Your task to perform on an android device: turn off notifications settings in the gmail app Image 0: 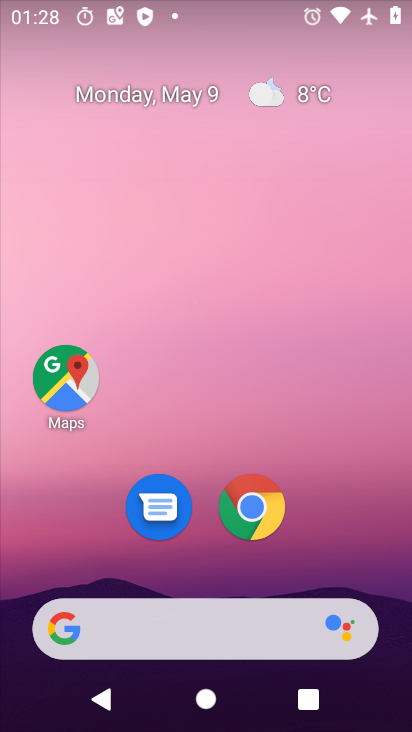
Step 0: drag from (235, 728) to (219, 208)
Your task to perform on an android device: turn off notifications settings in the gmail app Image 1: 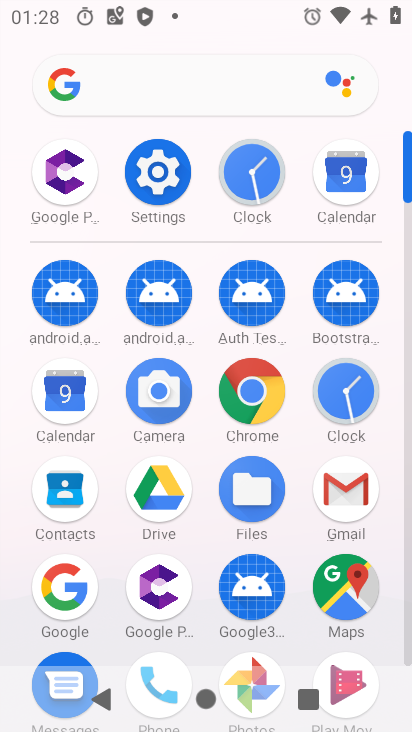
Step 1: click (356, 489)
Your task to perform on an android device: turn off notifications settings in the gmail app Image 2: 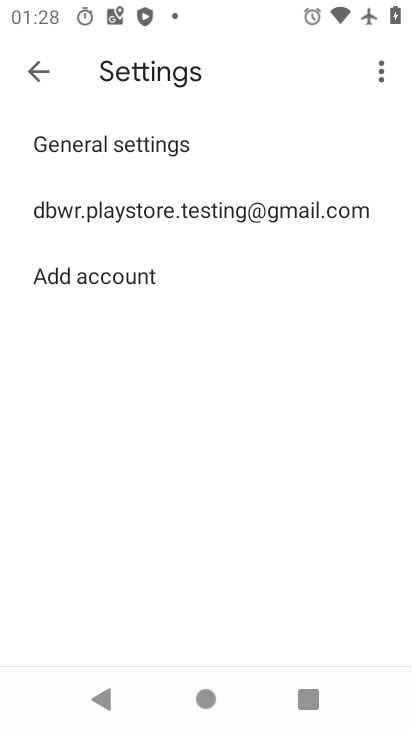
Step 2: click (162, 218)
Your task to perform on an android device: turn off notifications settings in the gmail app Image 3: 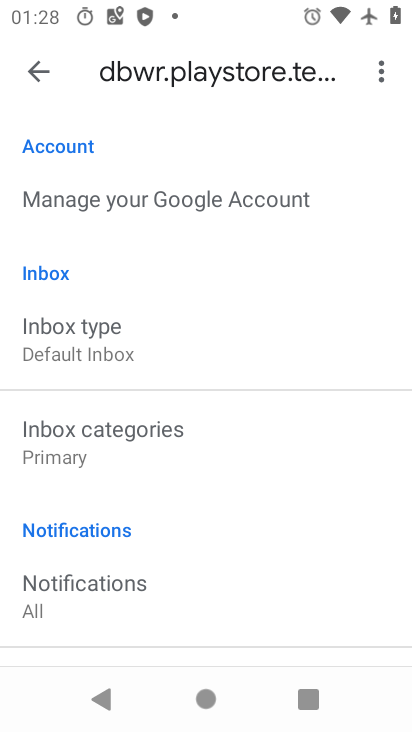
Step 3: drag from (219, 593) to (236, 334)
Your task to perform on an android device: turn off notifications settings in the gmail app Image 4: 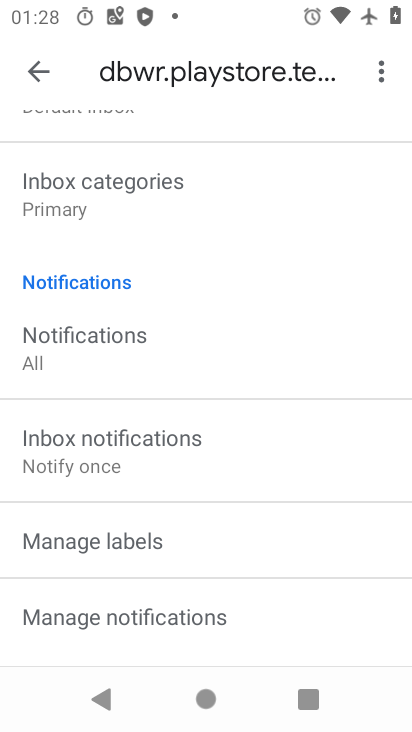
Step 4: click (101, 333)
Your task to perform on an android device: turn off notifications settings in the gmail app Image 5: 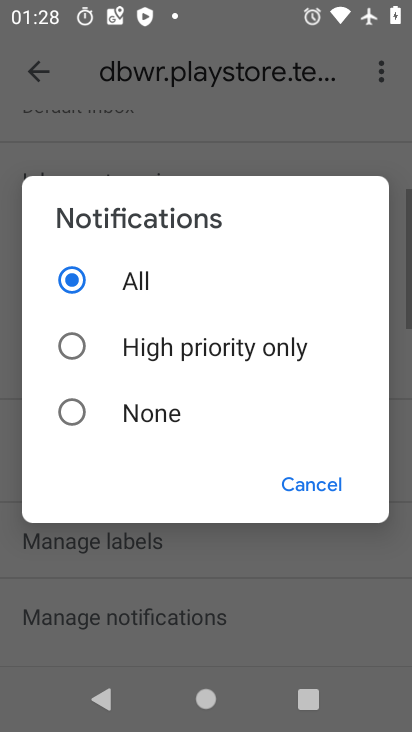
Step 5: click (76, 415)
Your task to perform on an android device: turn off notifications settings in the gmail app Image 6: 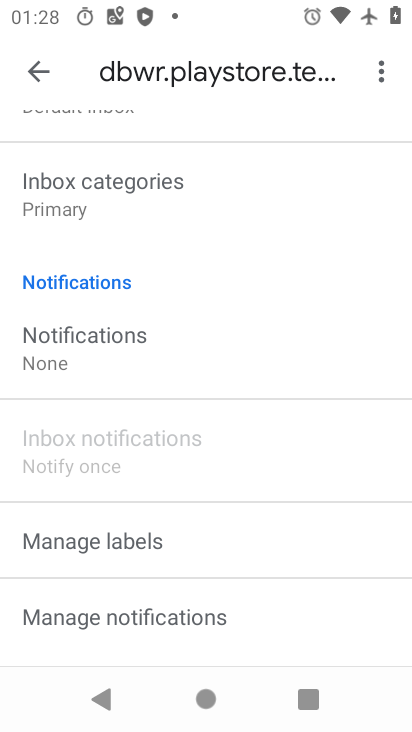
Step 6: task complete